Your task to perform on an android device: install app "PUBG MOBILE" Image 0: 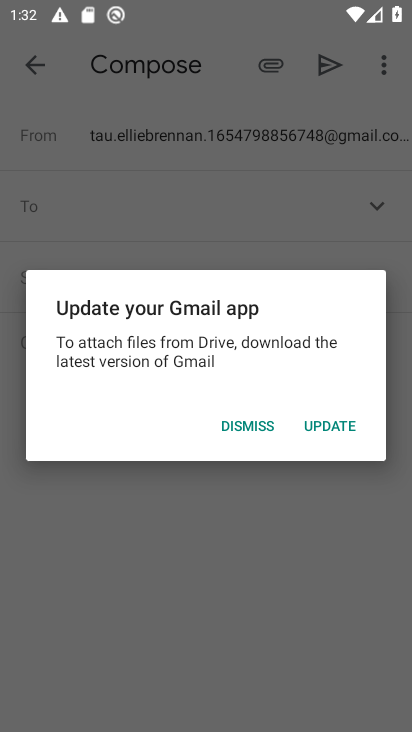
Step 0: press home button
Your task to perform on an android device: install app "PUBG MOBILE" Image 1: 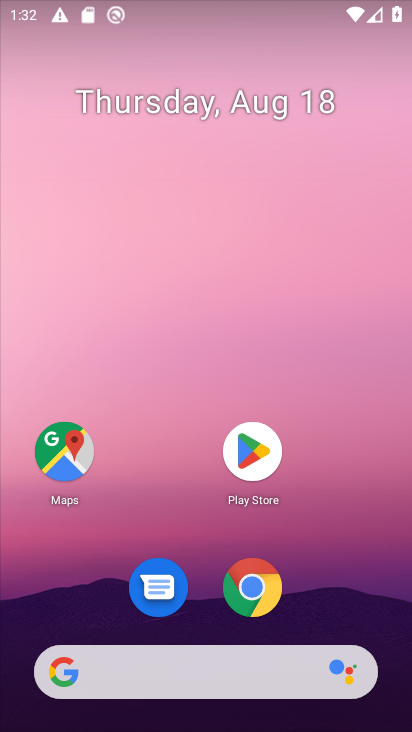
Step 1: click (256, 446)
Your task to perform on an android device: install app "PUBG MOBILE" Image 2: 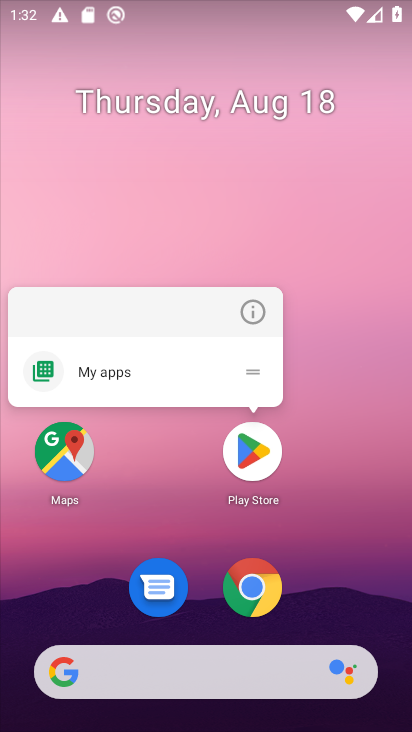
Step 2: click (254, 451)
Your task to perform on an android device: install app "PUBG MOBILE" Image 3: 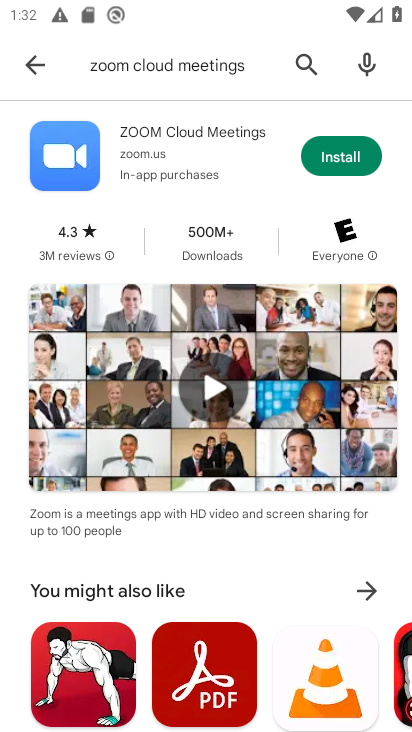
Step 3: click (304, 63)
Your task to perform on an android device: install app "PUBG MOBILE" Image 4: 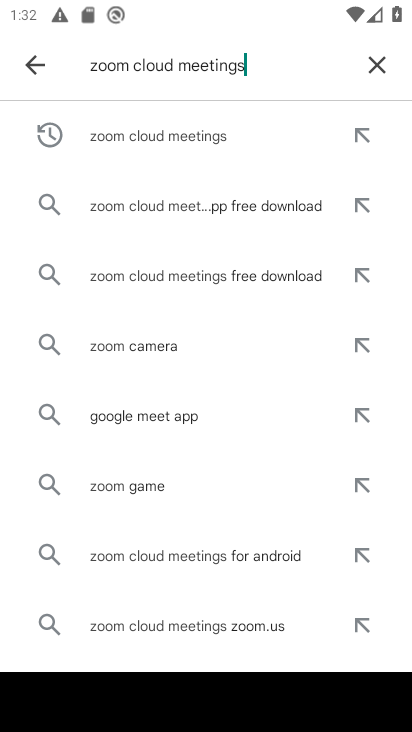
Step 4: click (370, 63)
Your task to perform on an android device: install app "PUBG MOBILE" Image 5: 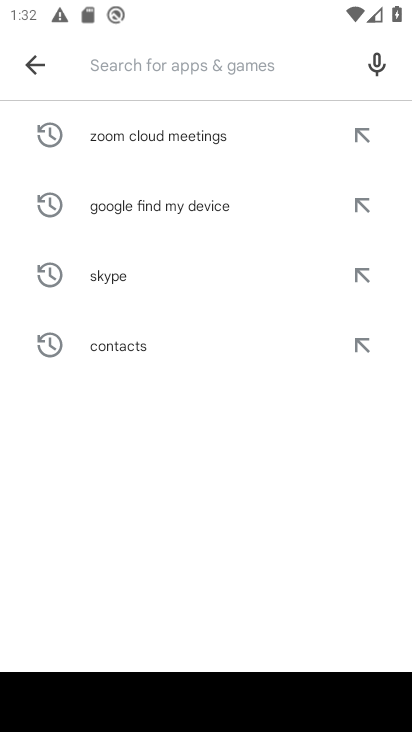
Step 5: type "PUBG MOBILE"
Your task to perform on an android device: install app "PUBG MOBILE" Image 6: 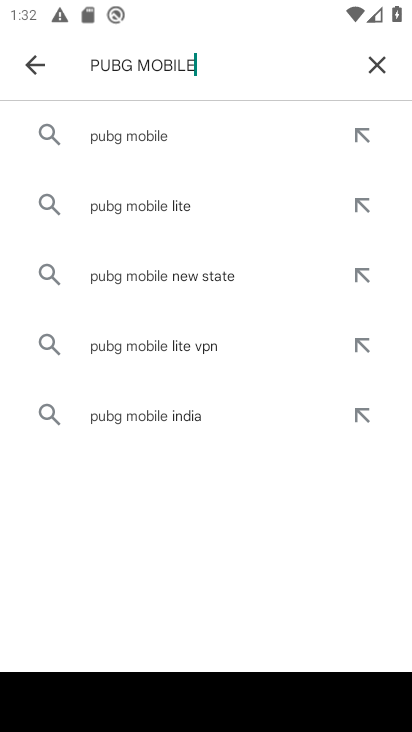
Step 6: click (104, 134)
Your task to perform on an android device: install app "PUBG MOBILE" Image 7: 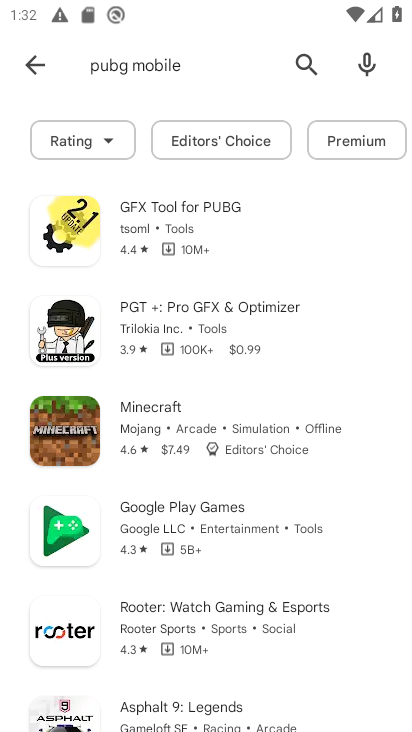
Step 7: task complete